Your task to perform on an android device: Open settings on Google Maps Image 0: 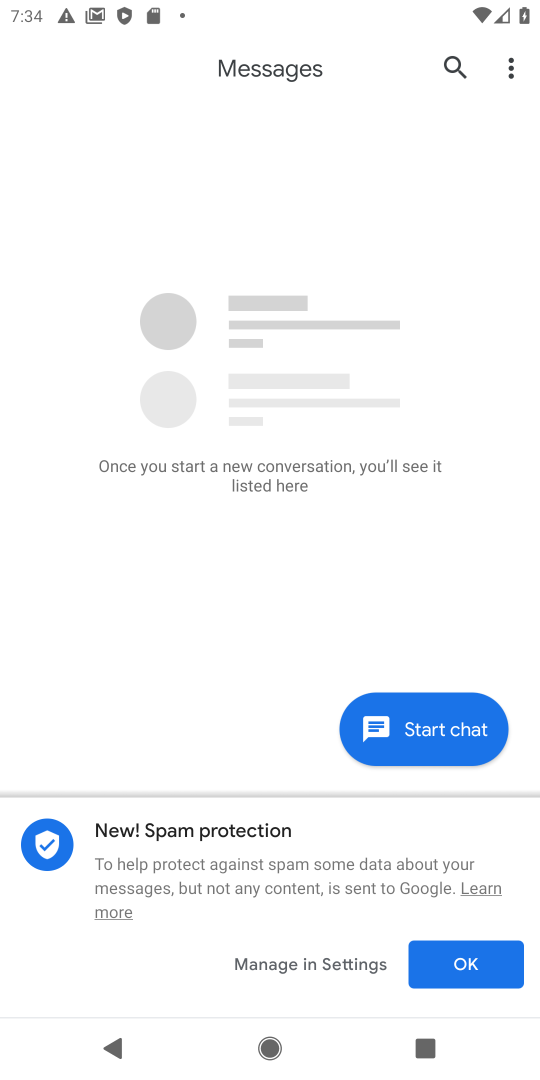
Step 0: press home button
Your task to perform on an android device: Open settings on Google Maps Image 1: 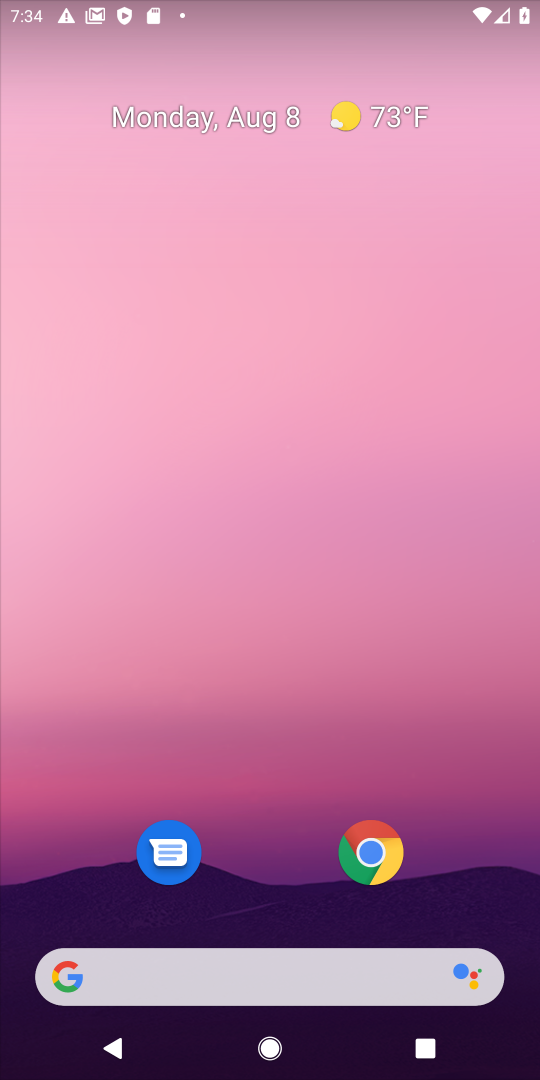
Step 1: drag from (16, 1028) to (359, 172)
Your task to perform on an android device: Open settings on Google Maps Image 2: 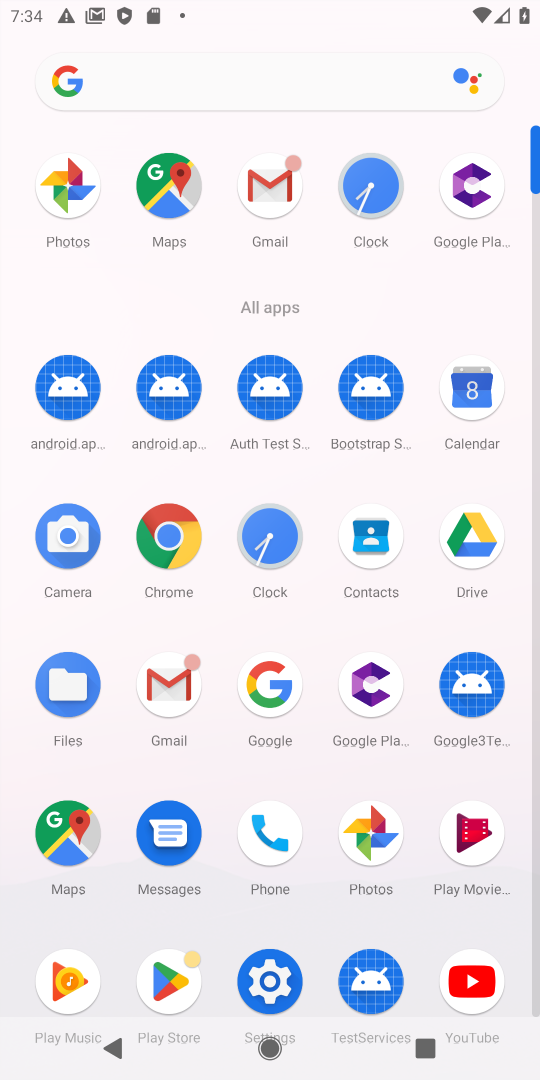
Step 2: click (90, 821)
Your task to perform on an android device: Open settings on Google Maps Image 3: 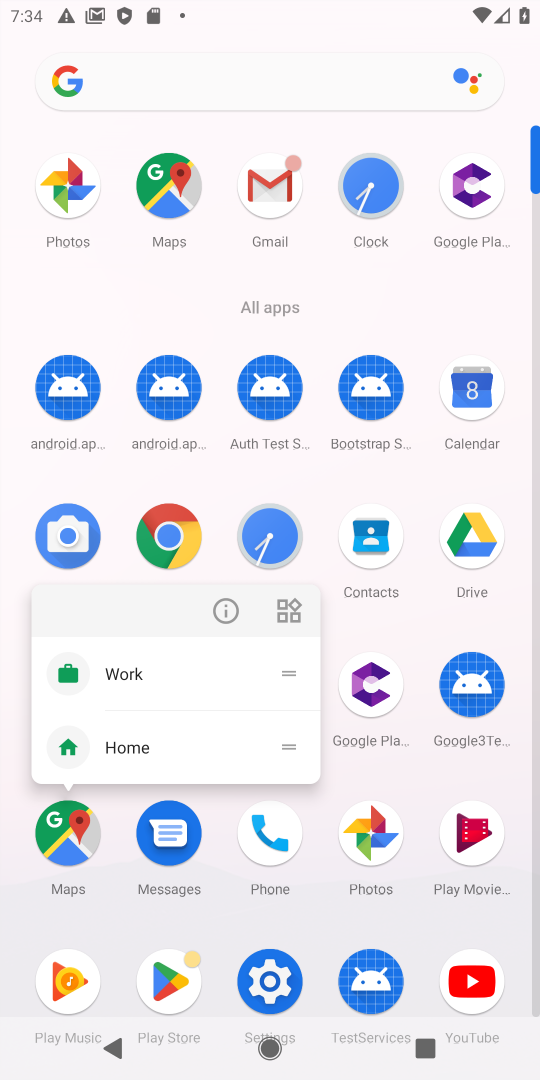
Step 3: click (46, 860)
Your task to perform on an android device: Open settings on Google Maps Image 4: 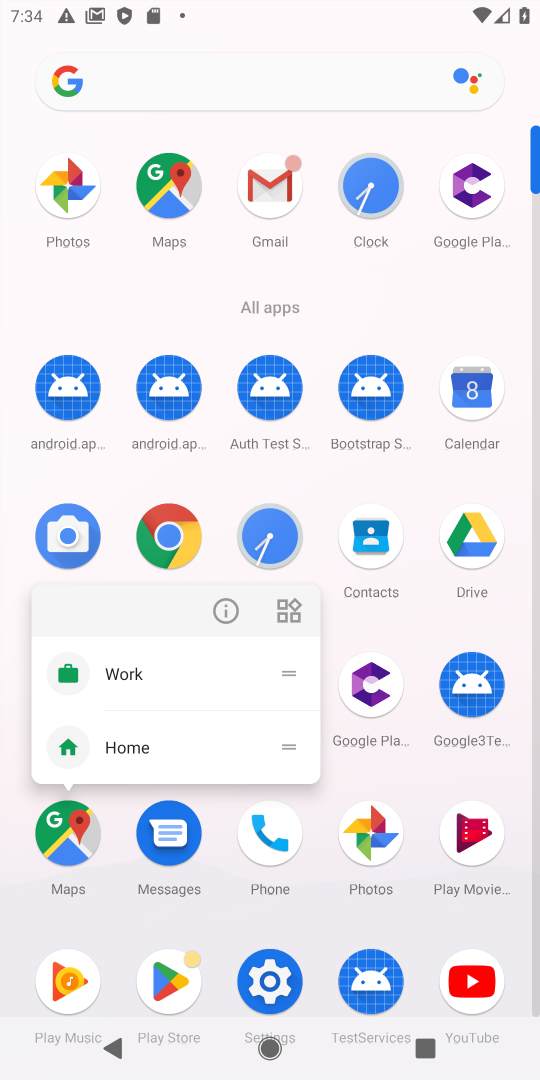
Step 4: click (59, 832)
Your task to perform on an android device: Open settings on Google Maps Image 5: 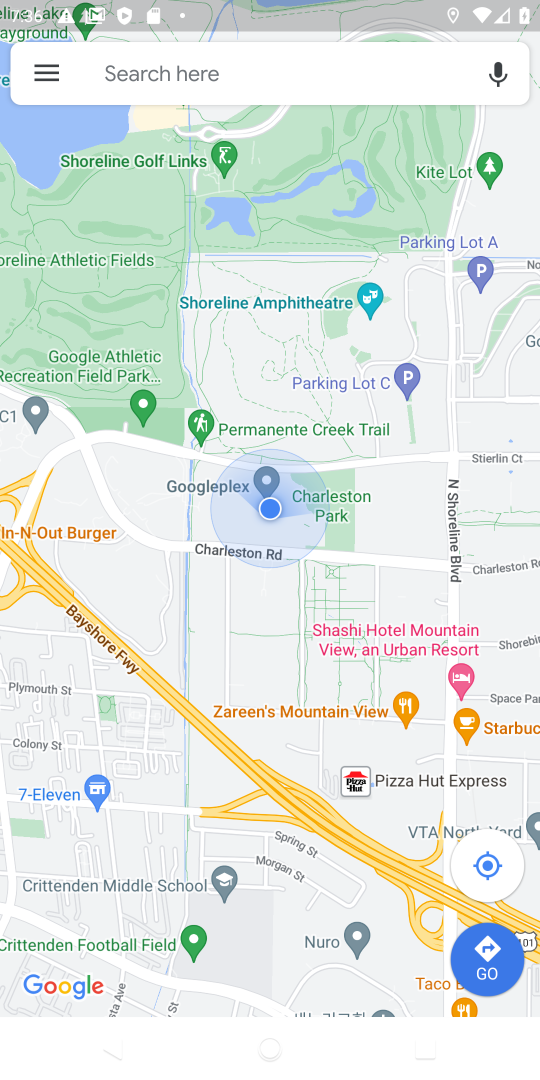
Step 5: task complete